Your task to perform on an android device: toggle notification dots Image 0: 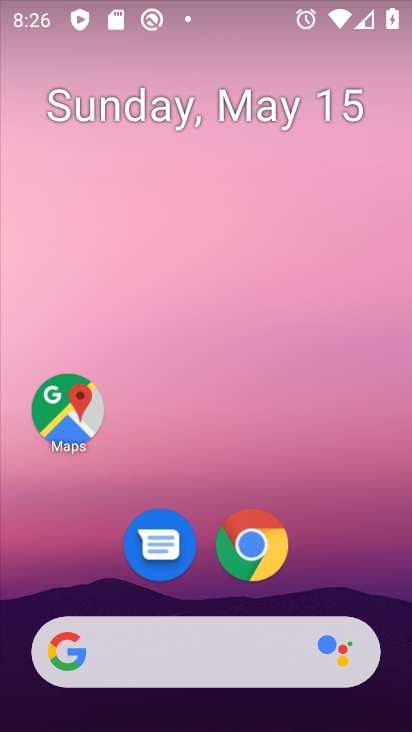
Step 0: drag from (370, 551) to (371, 80)
Your task to perform on an android device: toggle notification dots Image 1: 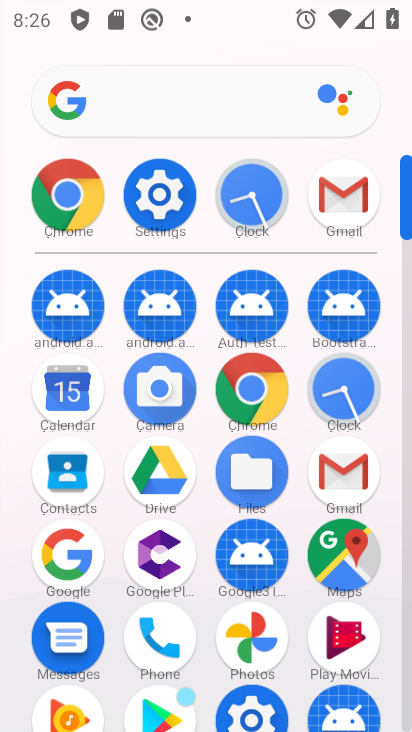
Step 1: click (157, 210)
Your task to perform on an android device: toggle notification dots Image 2: 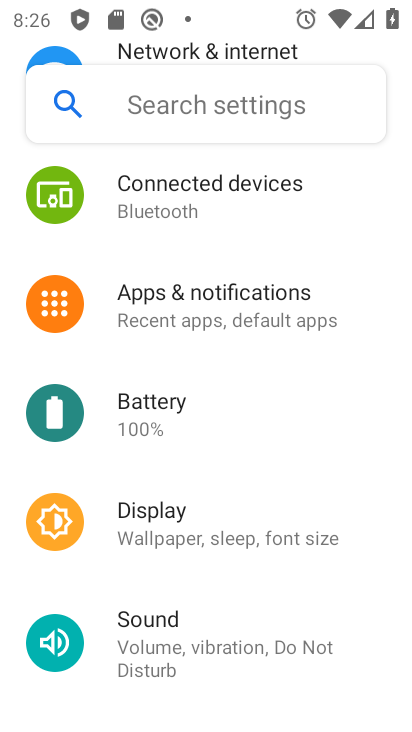
Step 2: drag from (374, 635) to (378, 330)
Your task to perform on an android device: toggle notification dots Image 3: 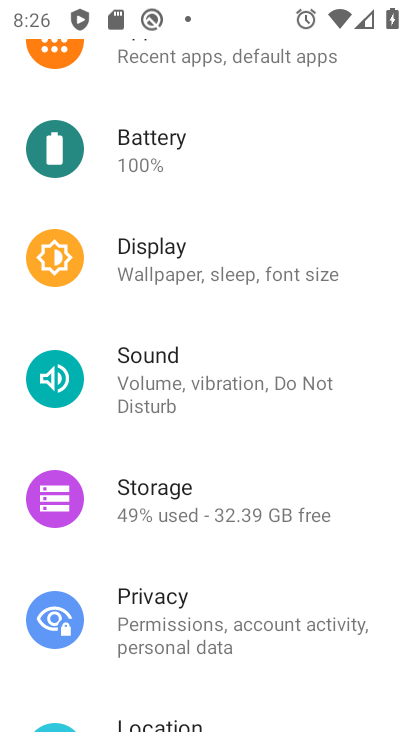
Step 3: drag from (345, 670) to (363, 345)
Your task to perform on an android device: toggle notification dots Image 4: 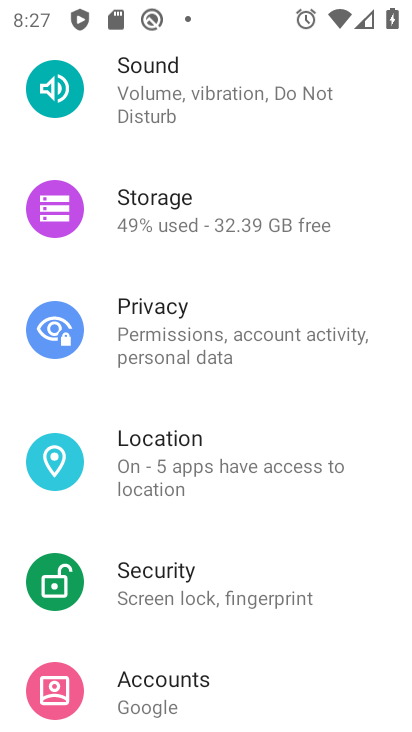
Step 4: drag from (322, 678) to (347, 326)
Your task to perform on an android device: toggle notification dots Image 5: 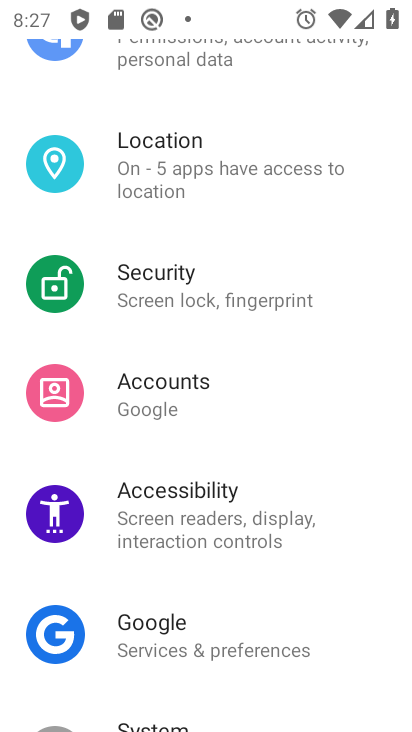
Step 5: drag from (353, 669) to (367, 365)
Your task to perform on an android device: toggle notification dots Image 6: 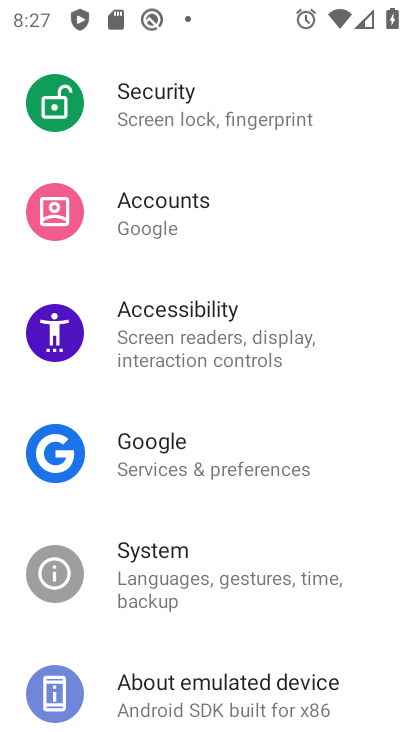
Step 6: drag from (360, 634) to (365, 333)
Your task to perform on an android device: toggle notification dots Image 7: 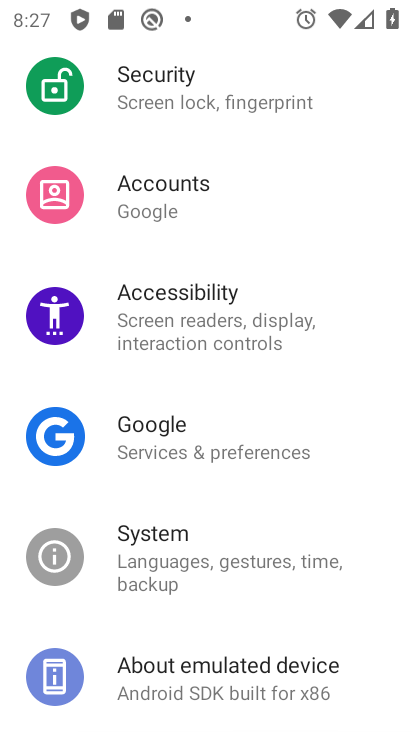
Step 7: drag from (373, 205) to (345, 460)
Your task to perform on an android device: toggle notification dots Image 8: 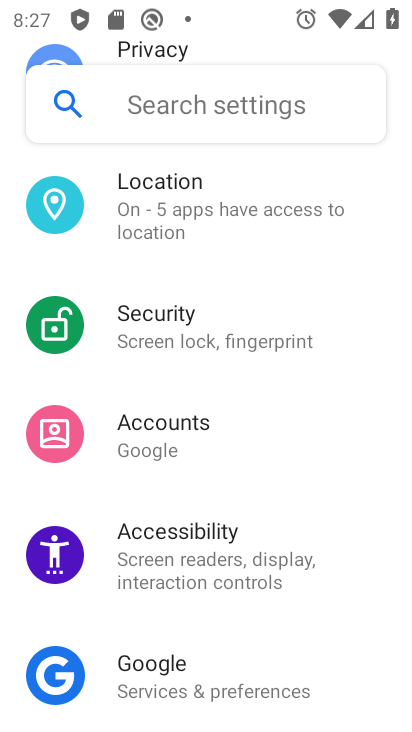
Step 8: drag from (359, 259) to (329, 566)
Your task to perform on an android device: toggle notification dots Image 9: 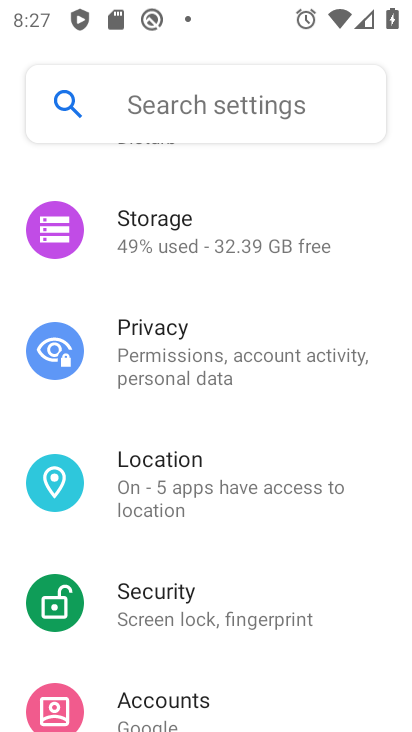
Step 9: drag from (375, 320) to (354, 547)
Your task to perform on an android device: toggle notification dots Image 10: 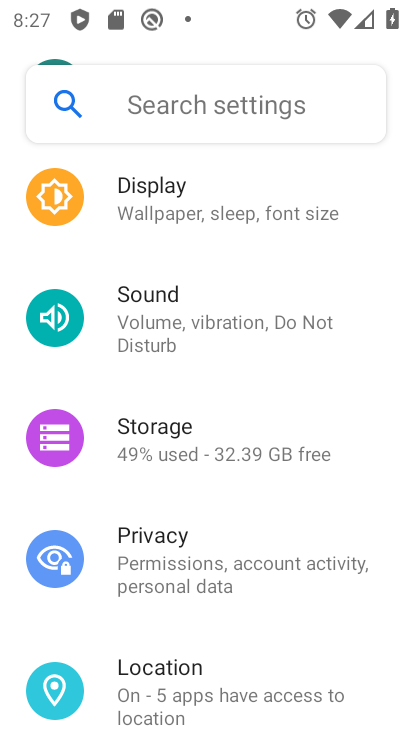
Step 10: drag from (374, 241) to (356, 499)
Your task to perform on an android device: toggle notification dots Image 11: 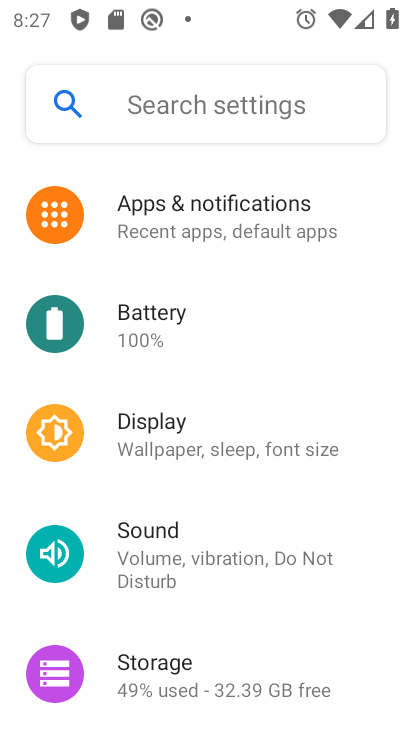
Step 11: click (264, 222)
Your task to perform on an android device: toggle notification dots Image 12: 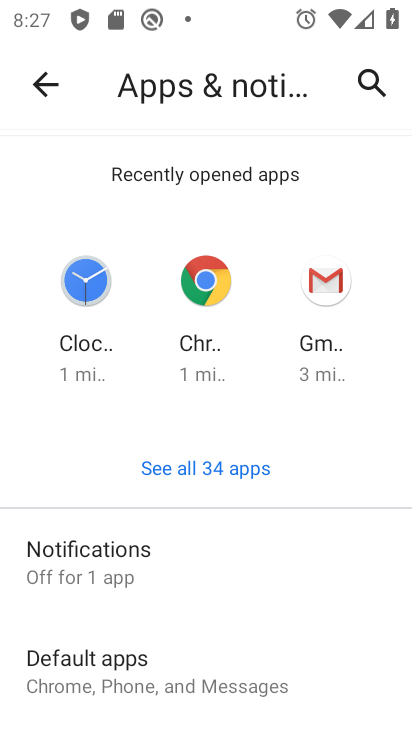
Step 12: drag from (325, 599) to (352, 274)
Your task to perform on an android device: toggle notification dots Image 13: 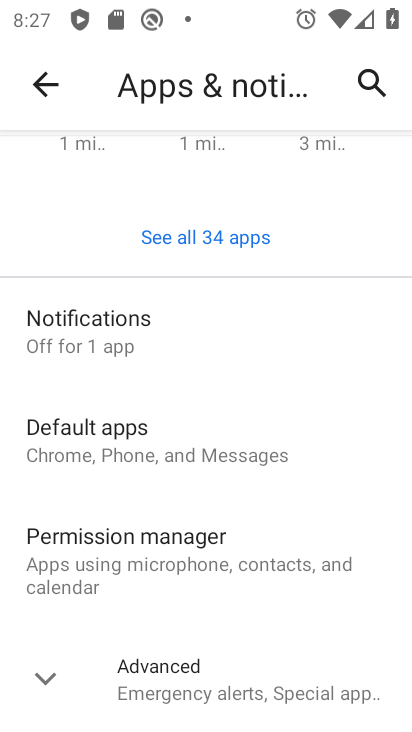
Step 13: click (72, 330)
Your task to perform on an android device: toggle notification dots Image 14: 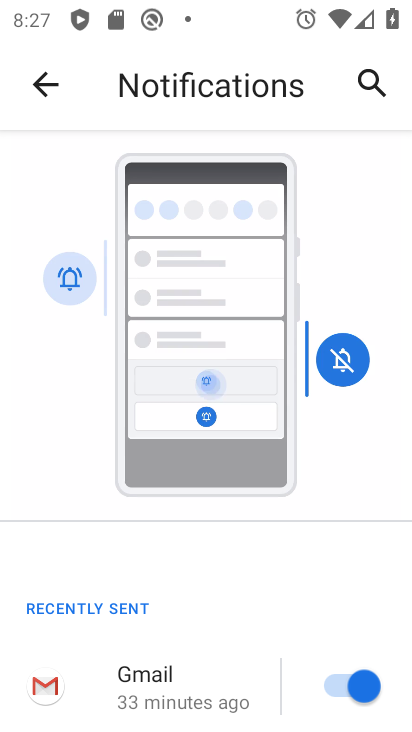
Step 14: drag from (264, 619) to (267, 396)
Your task to perform on an android device: toggle notification dots Image 15: 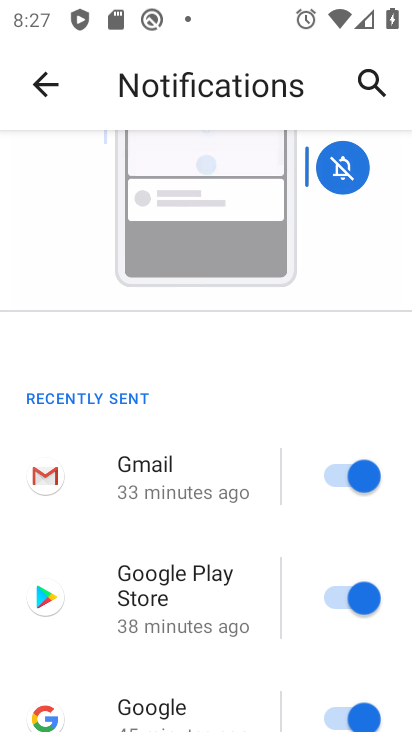
Step 15: drag from (242, 700) to (242, 433)
Your task to perform on an android device: toggle notification dots Image 16: 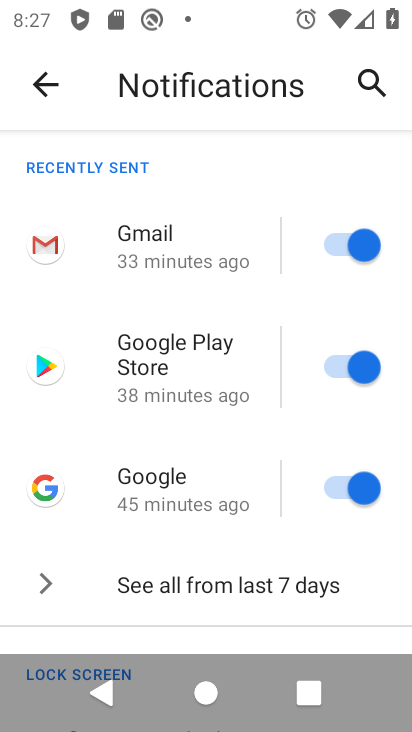
Step 16: drag from (232, 616) to (231, 365)
Your task to perform on an android device: toggle notification dots Image 17: 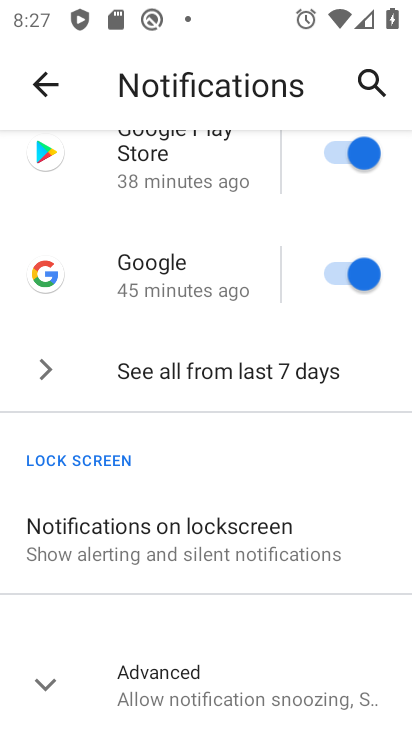
Step 17: drag from (234, 618) to (253, 403)
Your task to perform on an android device: toggle notification dots Image 18: 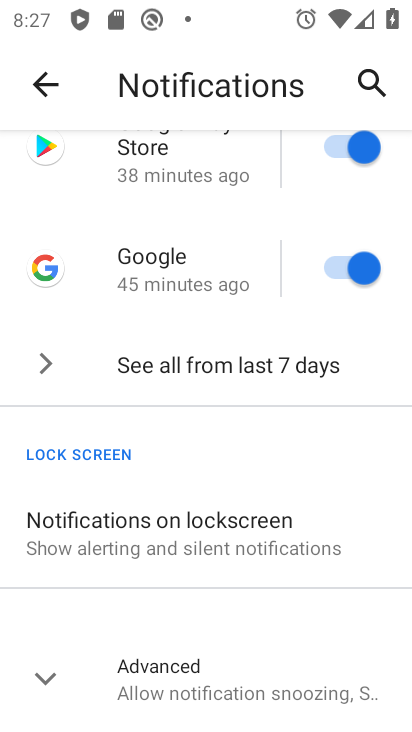
Step 18: click (174, 682)
Your task to perform on an android device: toggle notification dots Image 19: 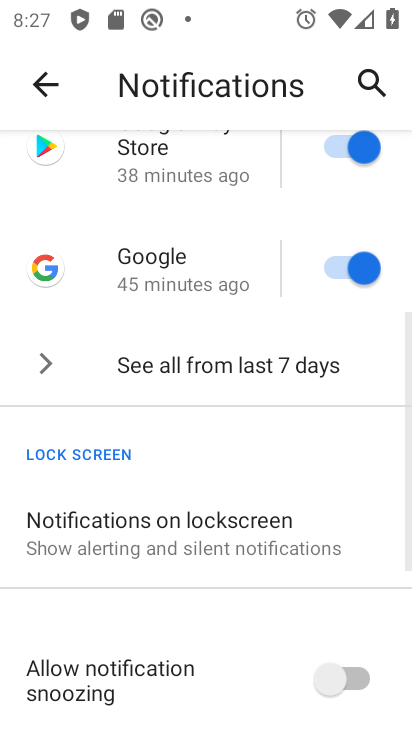
Step 19: drag from (228, 695) to (237, 409)
Your task to perform on an android device: toggle notification dots Image 20: 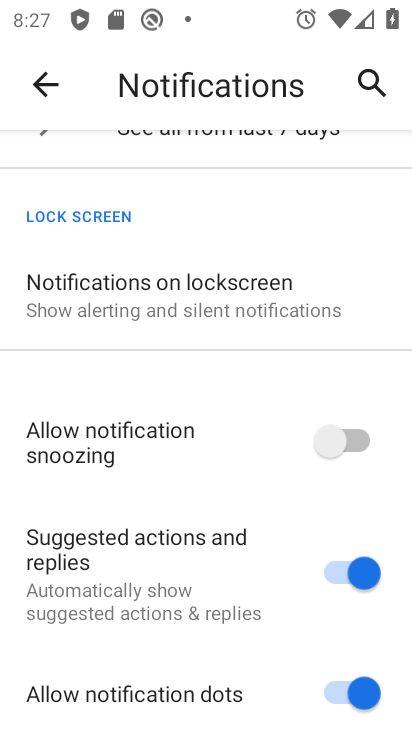
Step 20: drag from (192, 667) to (206, 459)
Your task to perform on an android device: toggle notification dots Image 21: 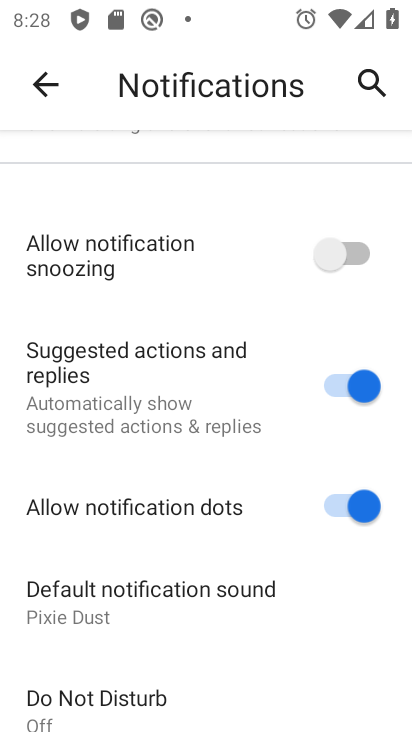
Step 21: drag from (197, 674) to (220, 487)
Your task to perform on an android device: toggle notification dots Image 22: 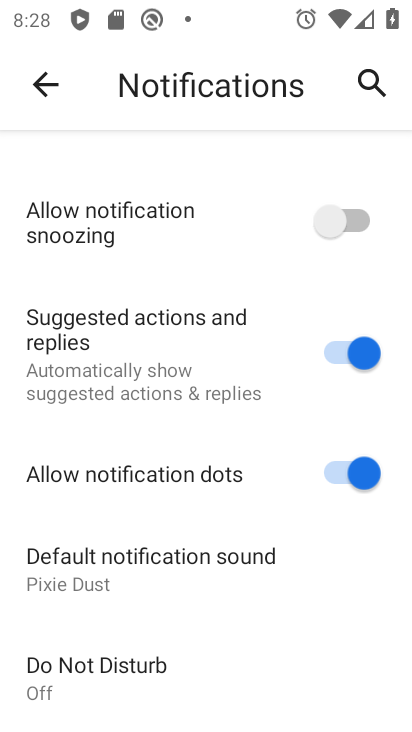
Step 22: click (361, 468)
Your task to perform on an android device: toggle notification dots Image 23: 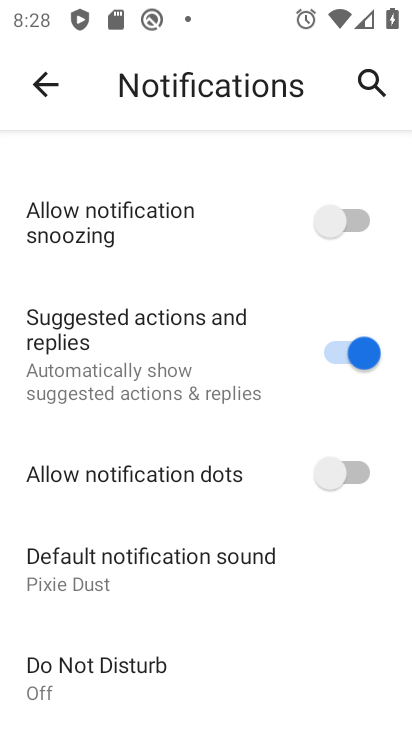
Step 23: task complete